Your task to perform on an android device: open app "Gmail" (install if not already installed) Image 0: 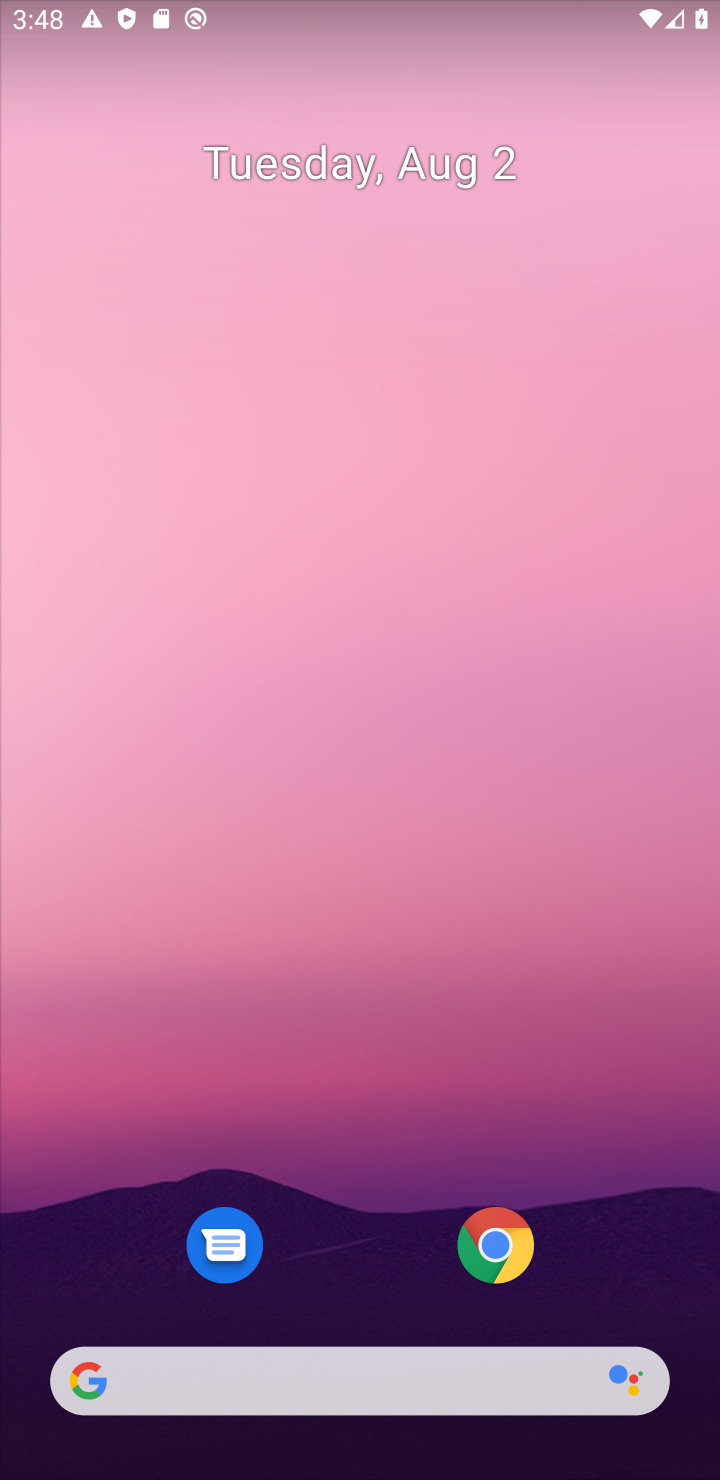
Step 0: drag from (324, 1271) to (361, 5)
Your task to perform on an android device: open app "Gmail" (install if not already installed) Image 1: 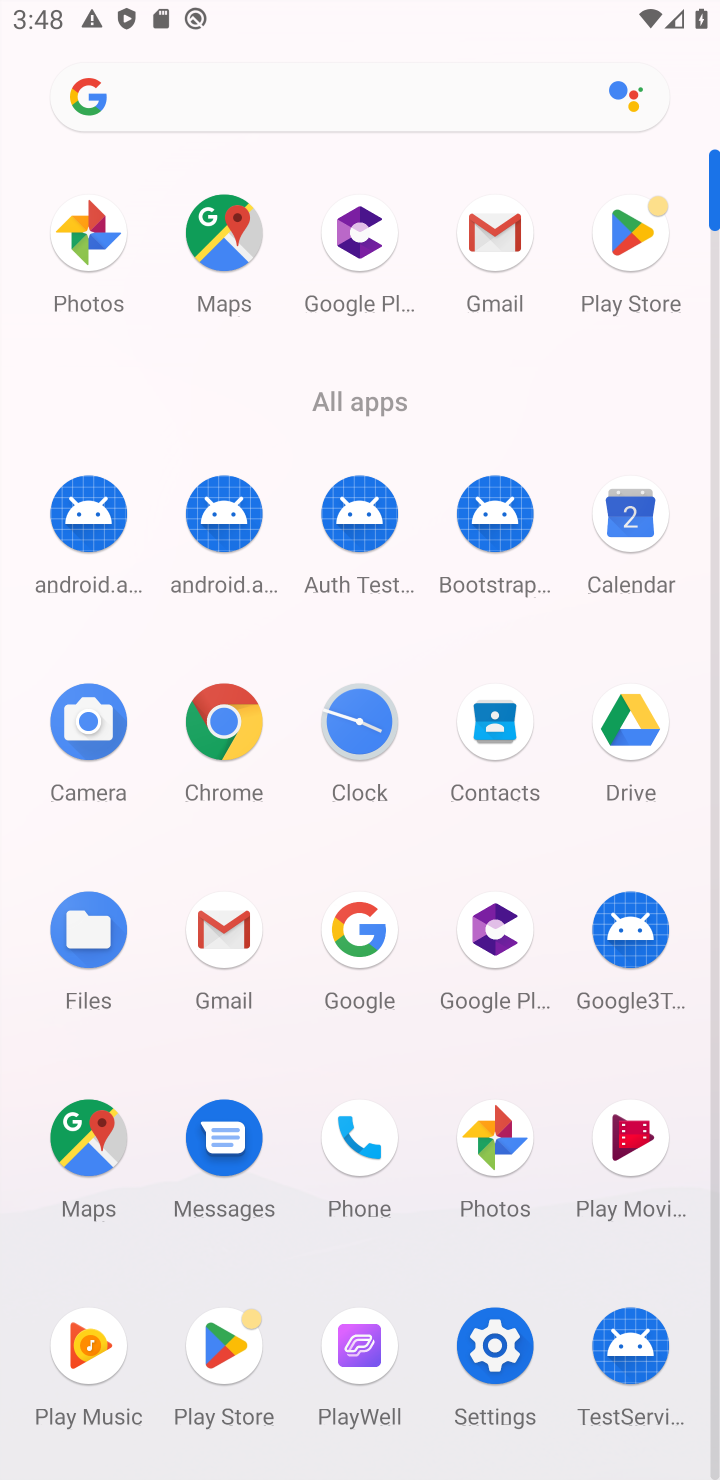
Step 1: click (622, 266)
Your task to perform on an android device: open app "Gmail" (install if not already installed) Image 2: 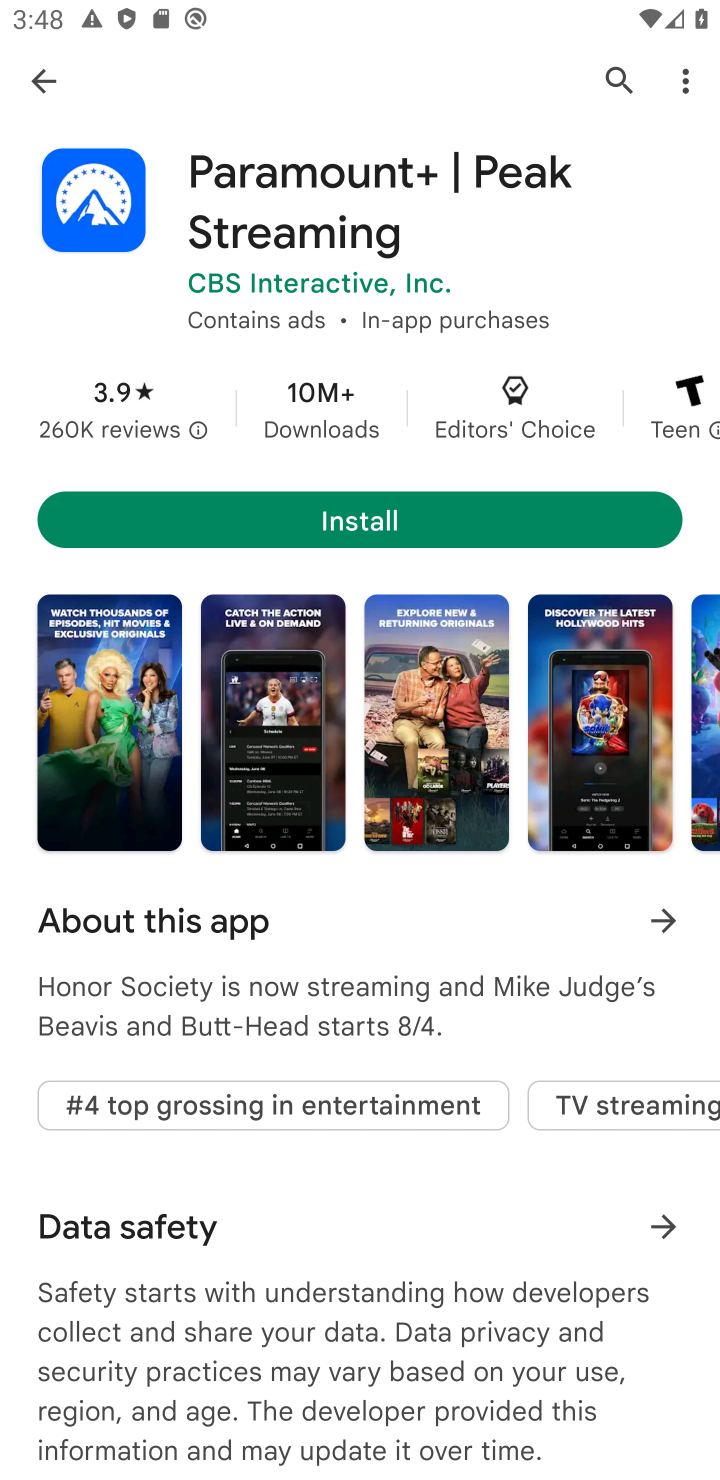
Step 2: click (613, 74)
Your task to perform on an android device: open app "Gmail" (install if not already installed) Image 3: 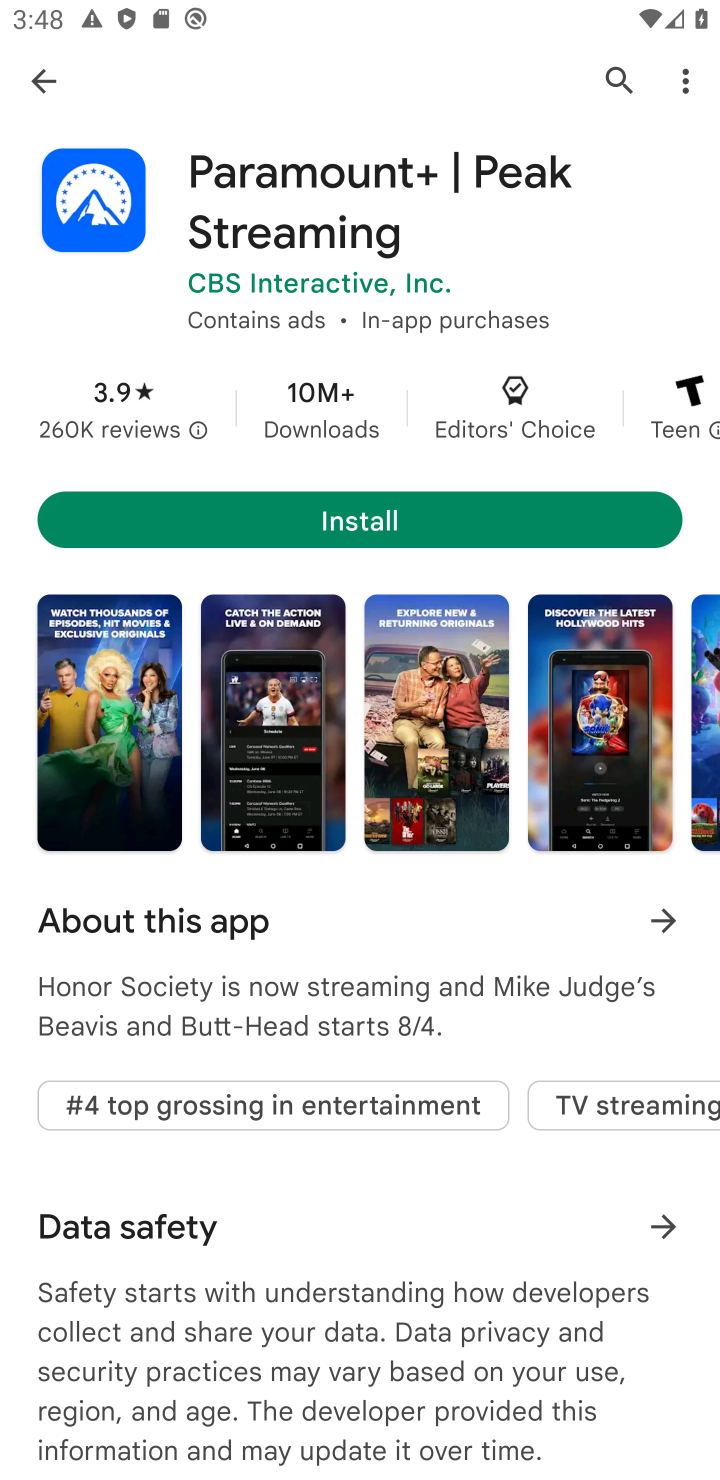
Step 3: click (615, 86)
Your task to perform on an android device: open app "Gmail" (install if not already installed) Image 4: 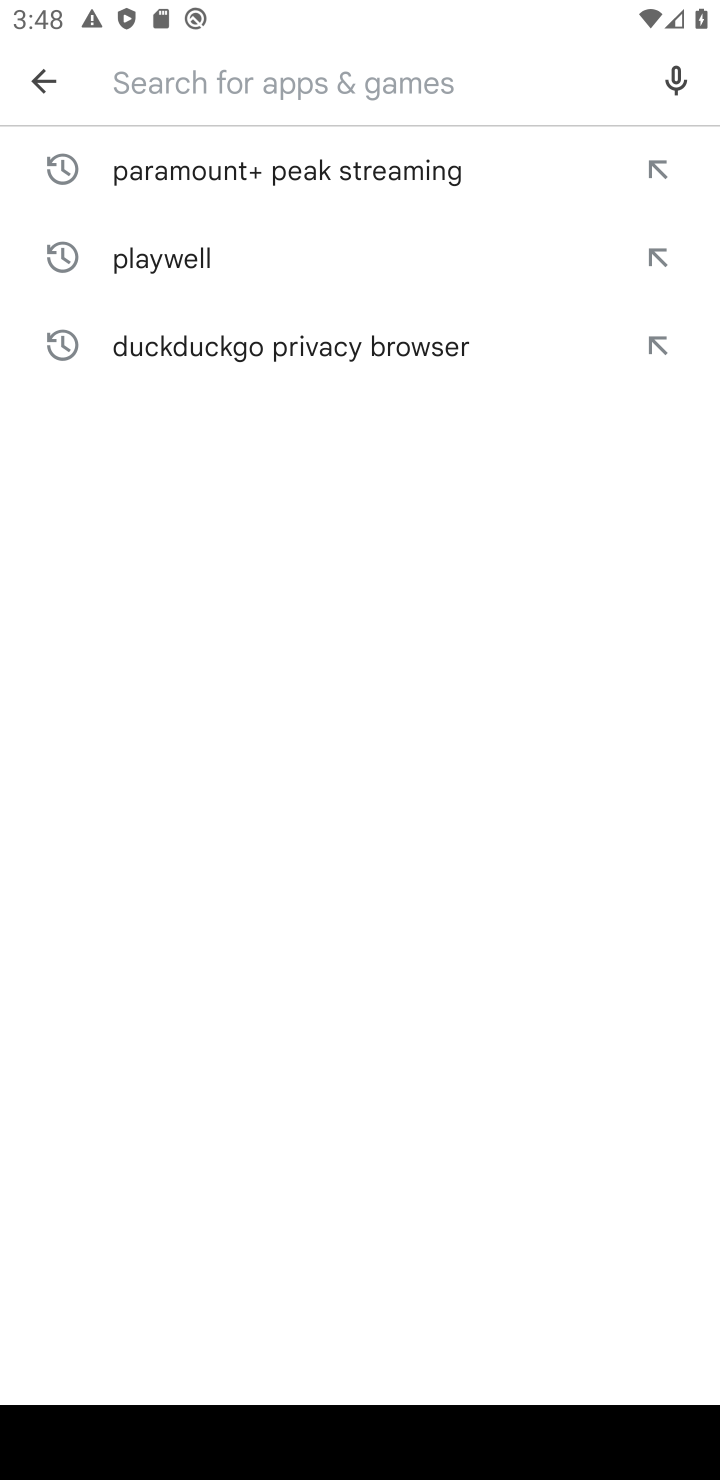
Step 4: type "Gmail"
Your task to perform on an android device: open app "Gmail" (install if not already installed) Image 5: 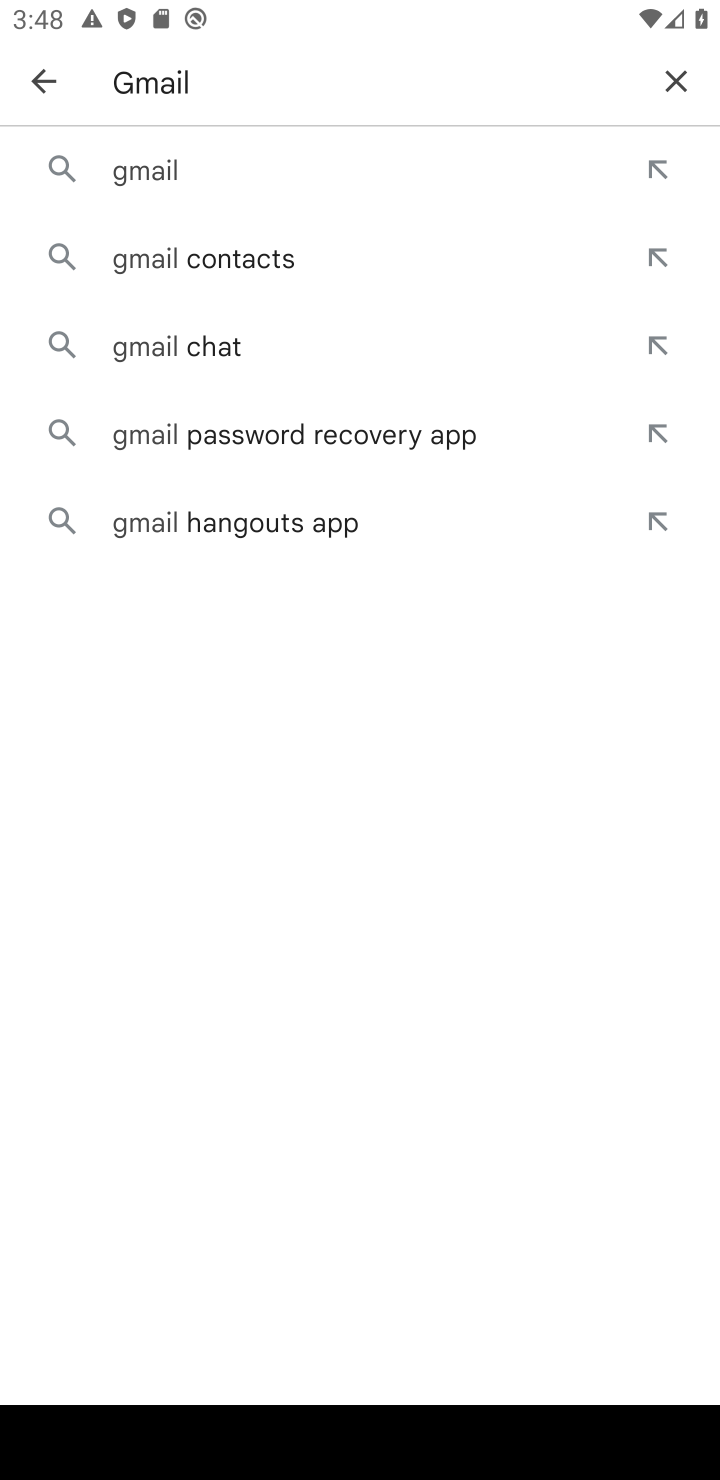
Step 5: click (147, 190)
Your task to perform on an android device: open app "Gmail" (install if not already installed) Image 6: 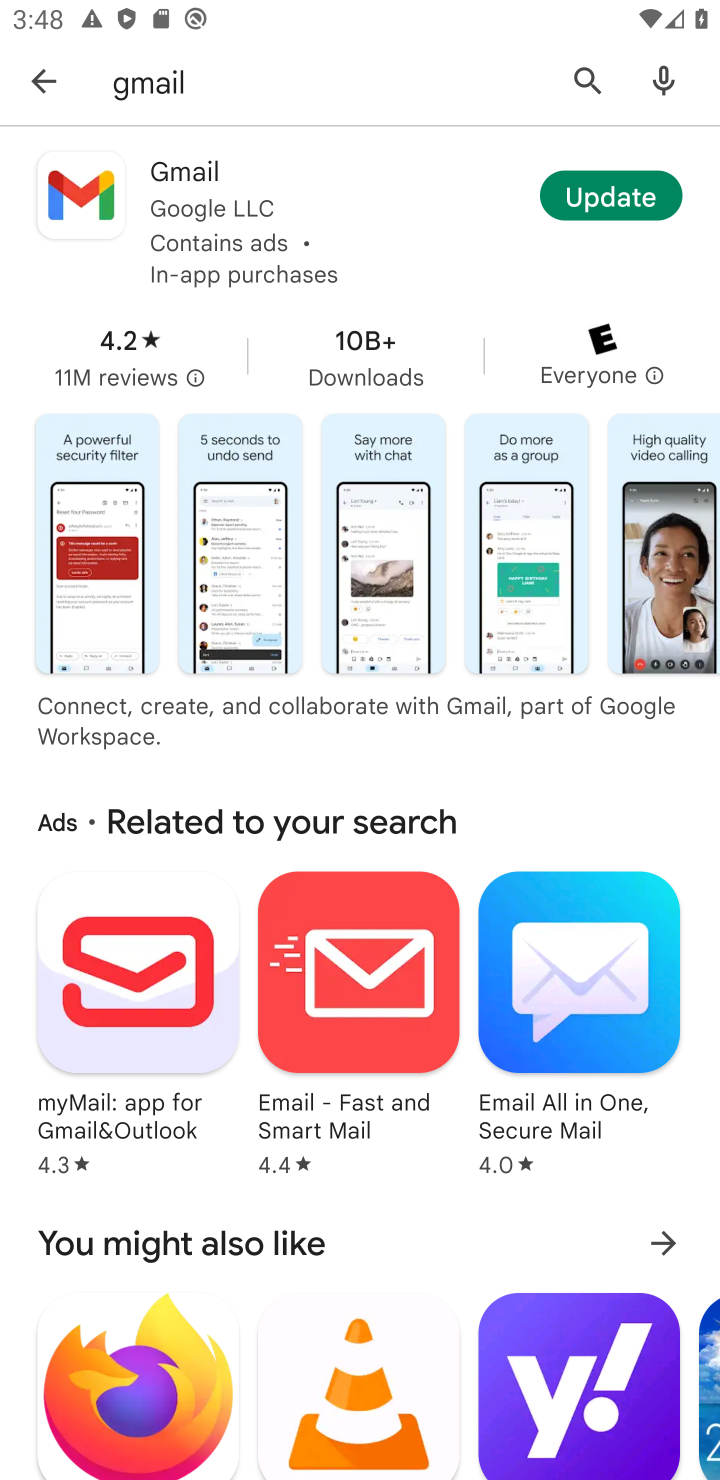
Step 6: click (172, 183)
Your task to perform on an android device: open app "Gmail" (install if not already installed) Image 7: 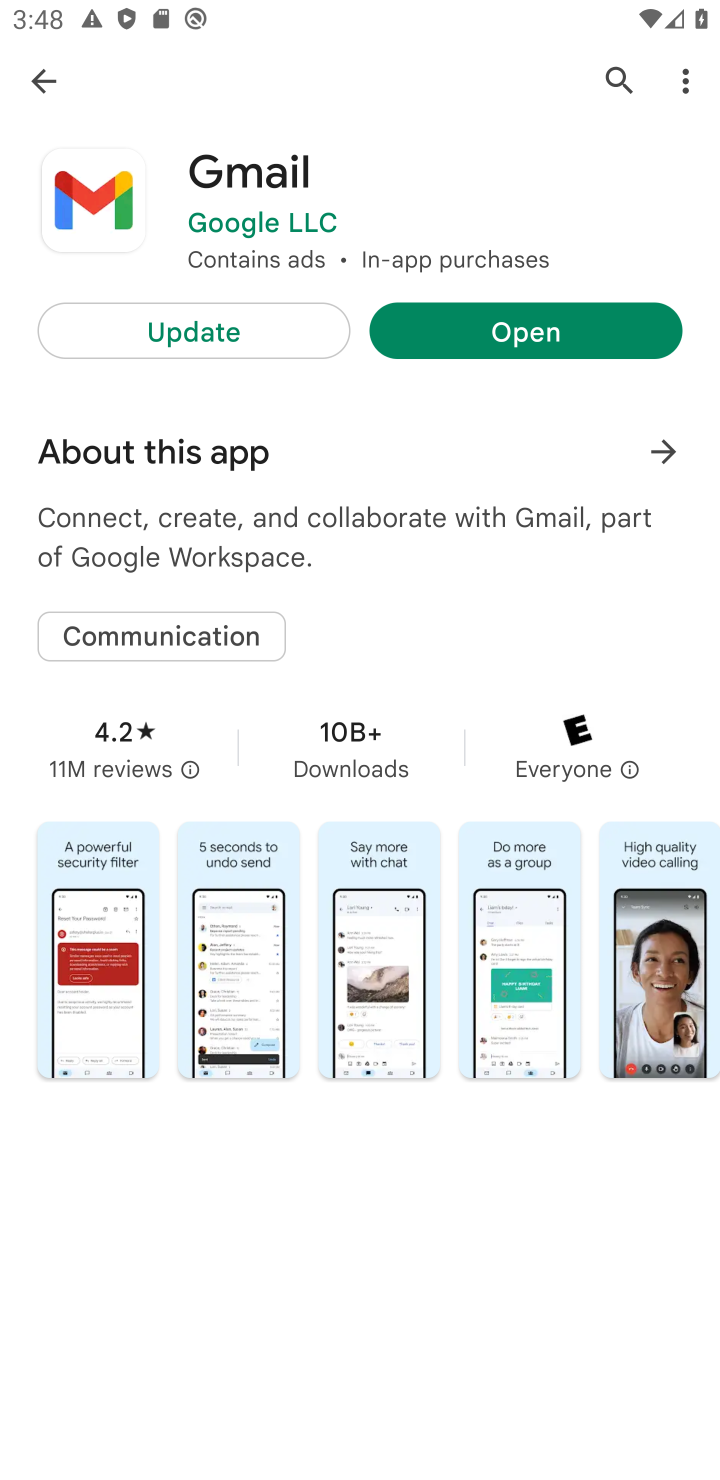
Step 7: click (541, 319)
Your task to perform on an android device: open app "Gmail" (install if not already installed) Image 8: 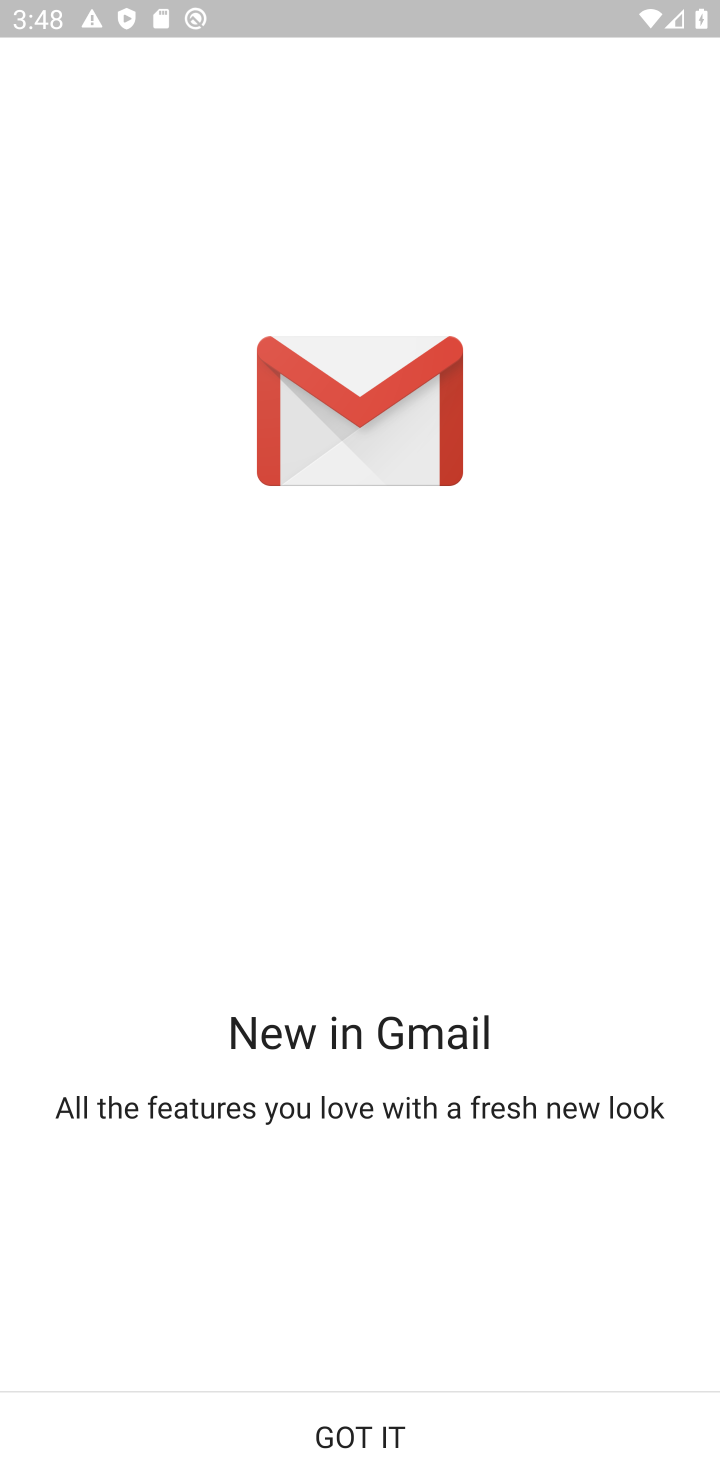
Step 8: task complete